Your task to perform on an android device: Turn on the flashlight Image 0: 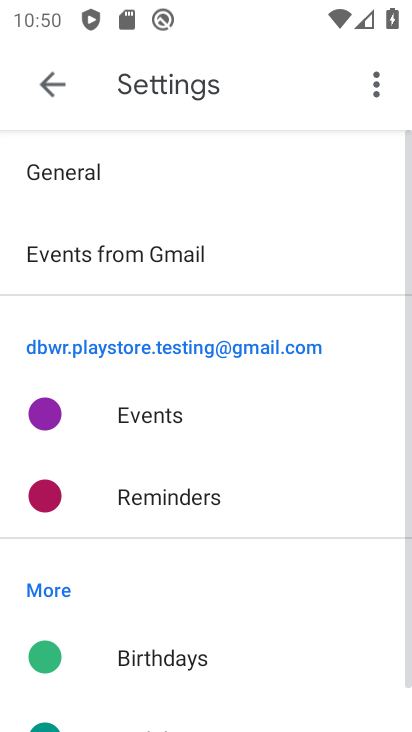
Step 0: press home button
Your task to perform on an android device: Turn on the flashlight Image 1: 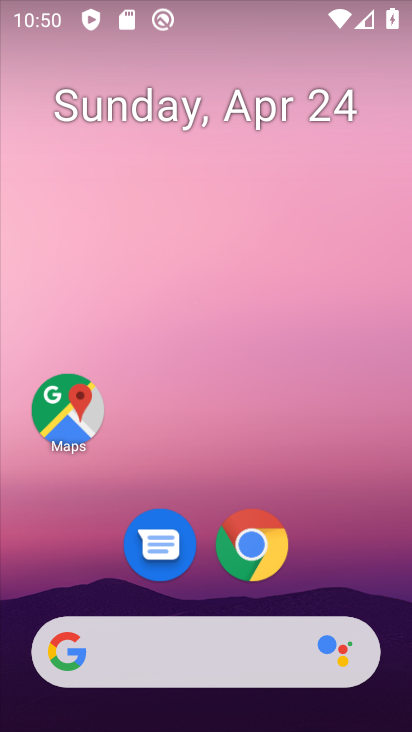
Step 1: drag from (262, 681) to (257, 121)
Your task to perform on an android device: Turn on the flashlight Image 2: 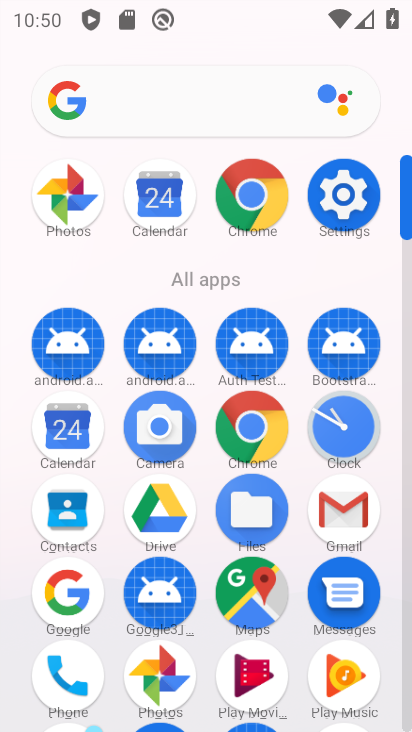
Step 2: click (343, 195)
Your task to perform on an android device: Turn on the flashlight Image 3: 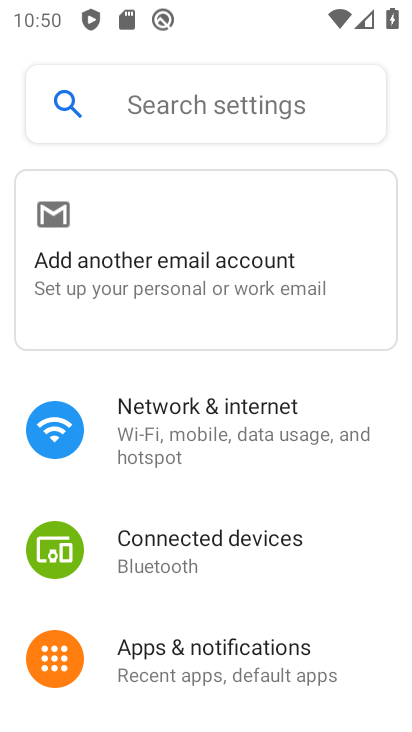
Step 3: click (158, 93)
Your task to perform on an android device: Turn on the flashlight Image 4: 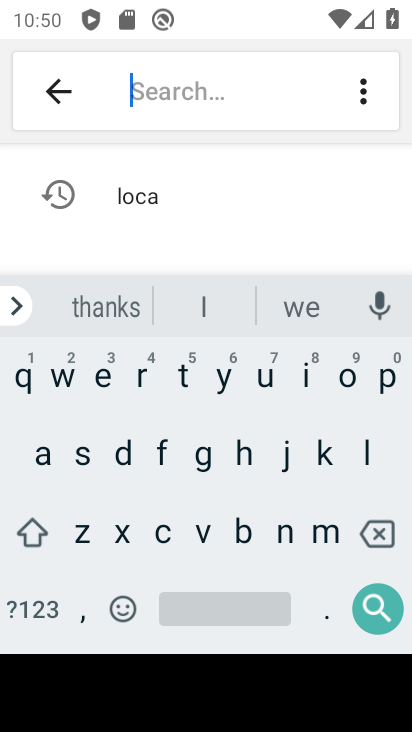
Step 4: click (159, 447)
Your task to perform on an android device: Turn on the flashlight Image 5: 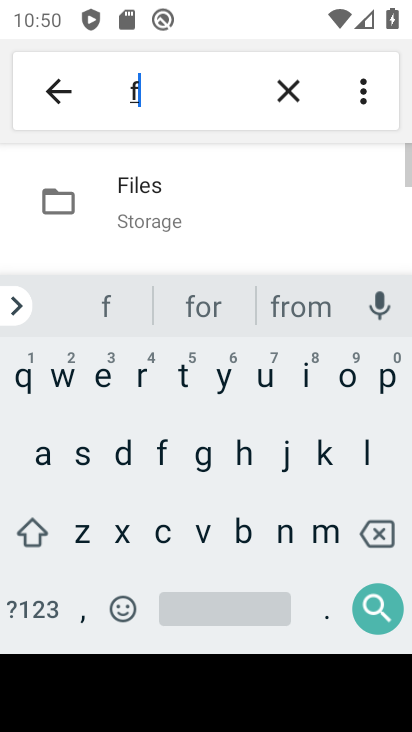
Step 5: click (373, 446)
Your task to perform on an android device: Turn on the flashlight Image 6: 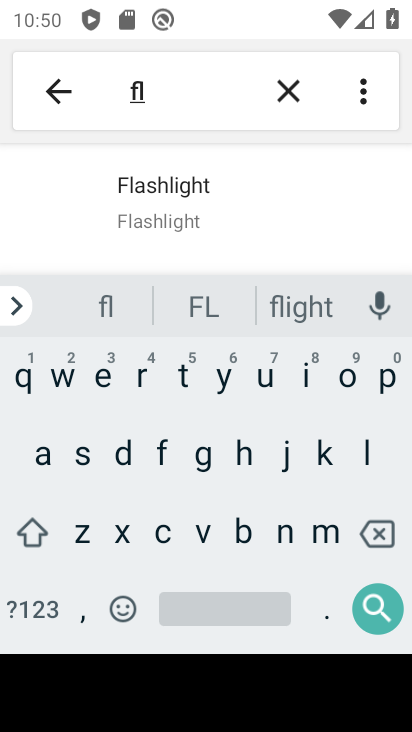
Step 6: click (190, 195)
Your task to perform on an android device: Turn on the flashlight Image 7: 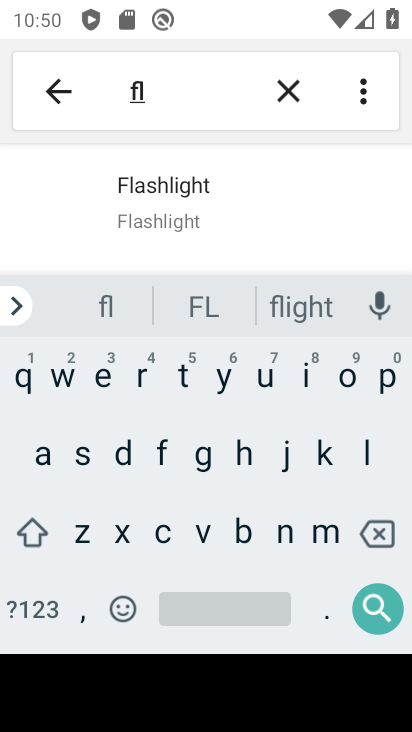
Step 7: task complete